Your task to perform on an android device: turn on the 12-hour format for clock Image 0: 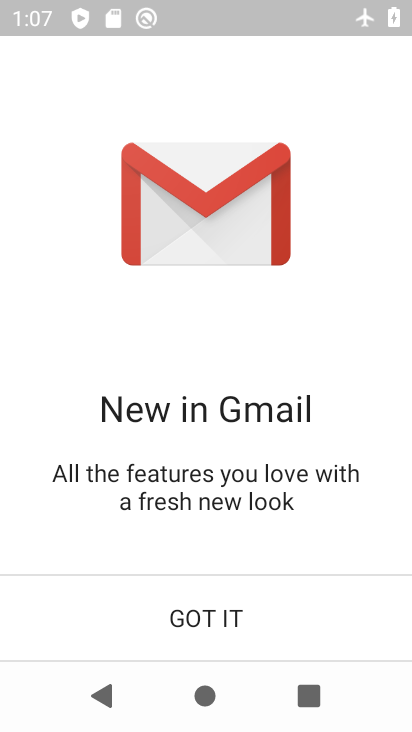
Step 0: press home button
Your task to perform on an android device: turn on the 12-hour format for clock Image 1: 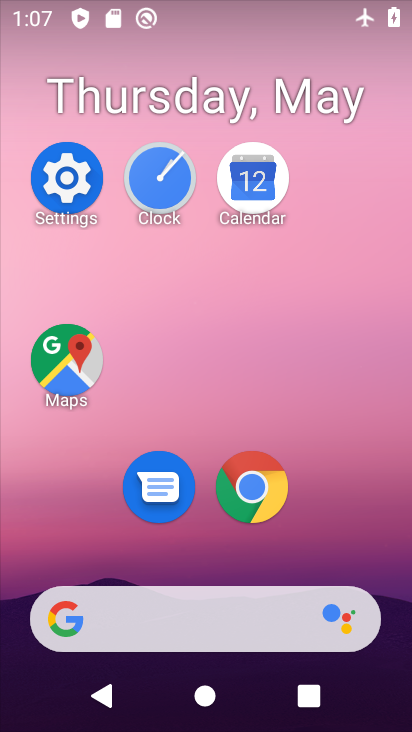
Step 1: click (161, 168)
Your task to perform on an android device: turn on the 12-hour format for clock Image 2: 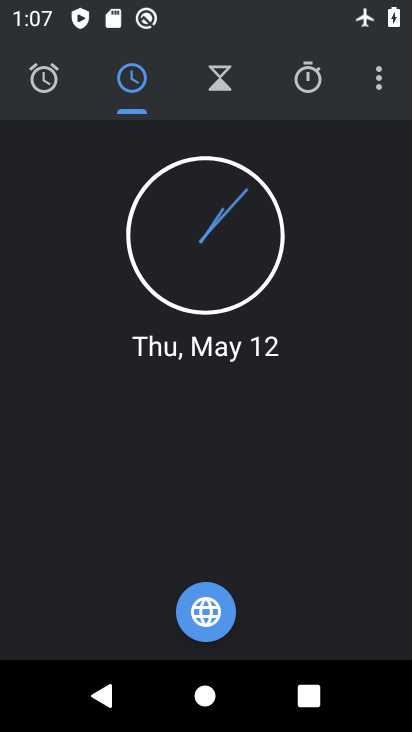
Step 2: click (387, 71)
Your task to perform on an android device: turn on the 12-hour format for clock Image 3: 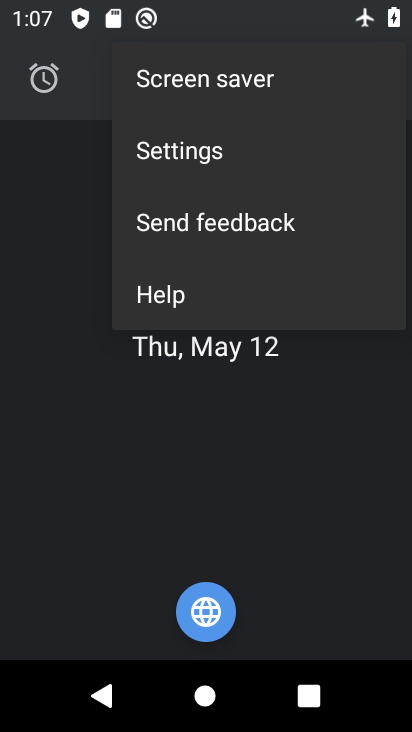
Step 3: click (227, 147)
Your task to perform on an android device: turn on the 12-hour format for clock Image 4: 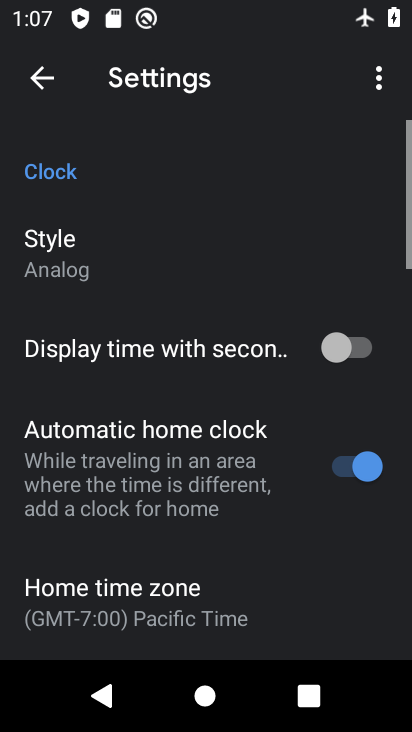
Step 4: drag from (191, 454) to (241, 119)
Your task to perform on an android device: turn on the 12-hour format for clock Image 5: 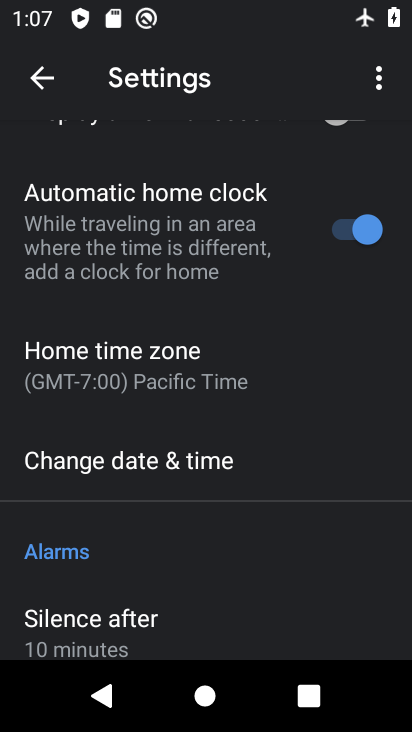
Step 5: click (169, 471)
Your task to perform on an android device: turn on the 12-hour format for clock Image 6: 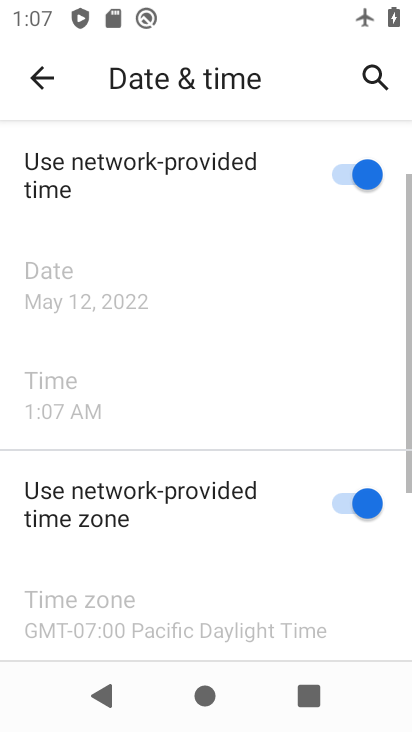
Step 6: task complete